Your task to perform on an android device: Search for flights from NYC to Tokyo Image 0: 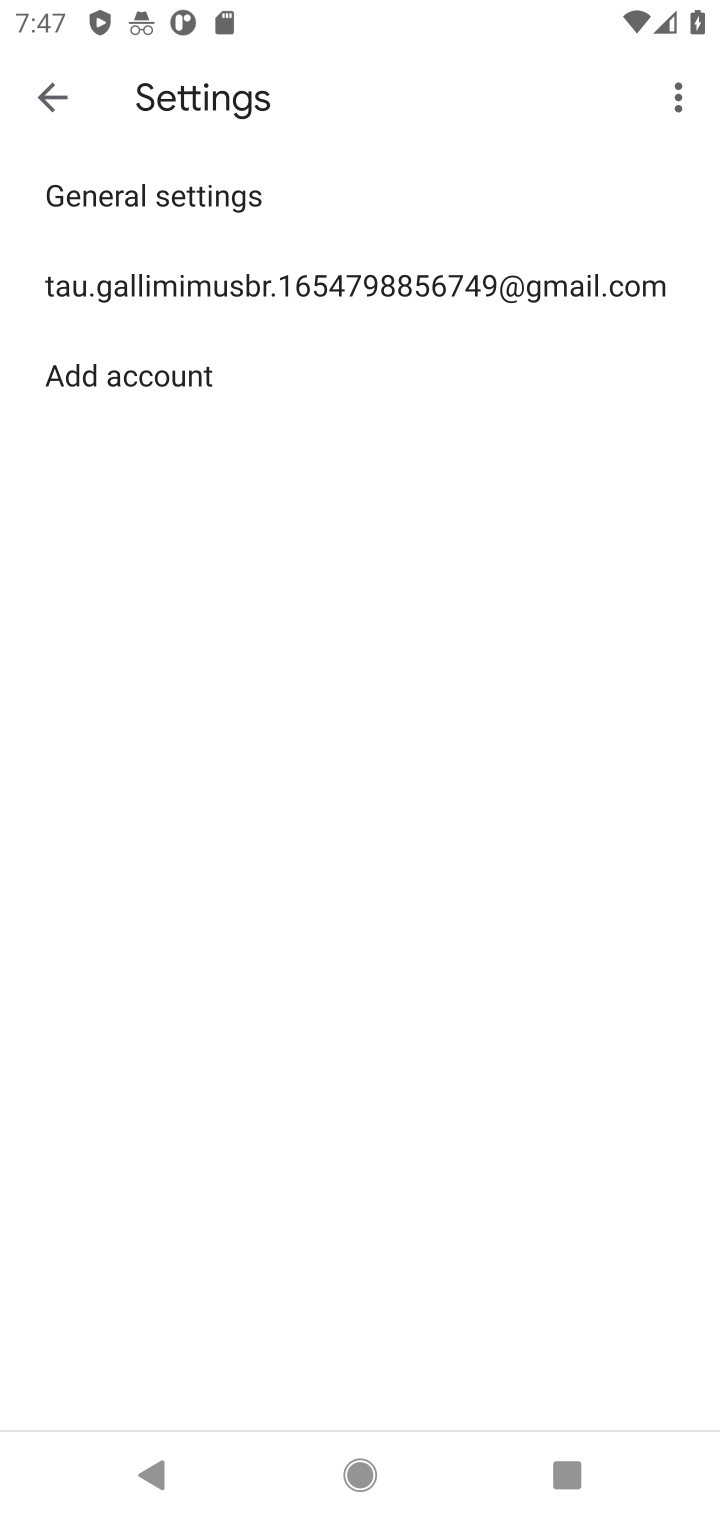
Step 0: press home button
Your task to perform on an android device: Search for flights from NYC to Tokyo Image 1: 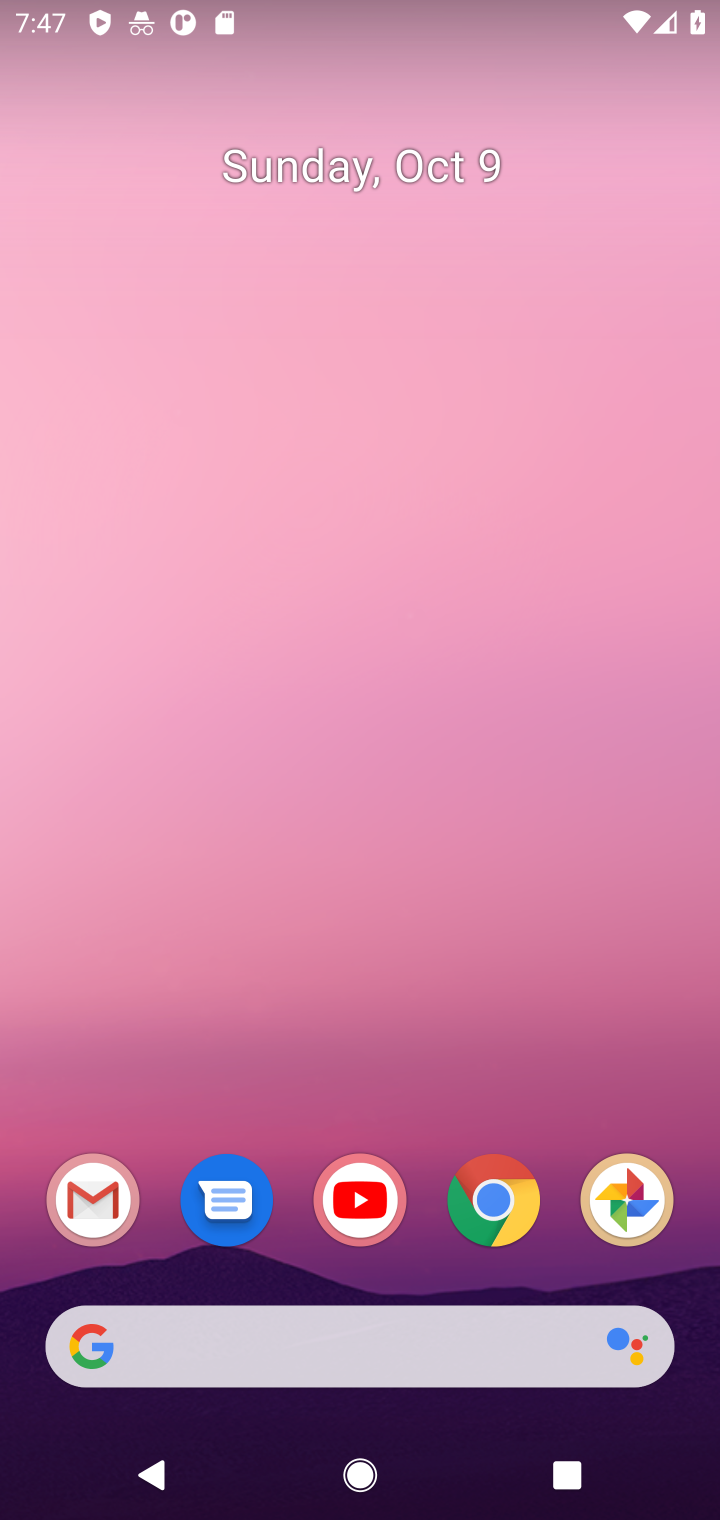
Step 1: click (487, 1207)
Your task to perform on an android device: Search for flights from NYC to Tokyo Image 2: 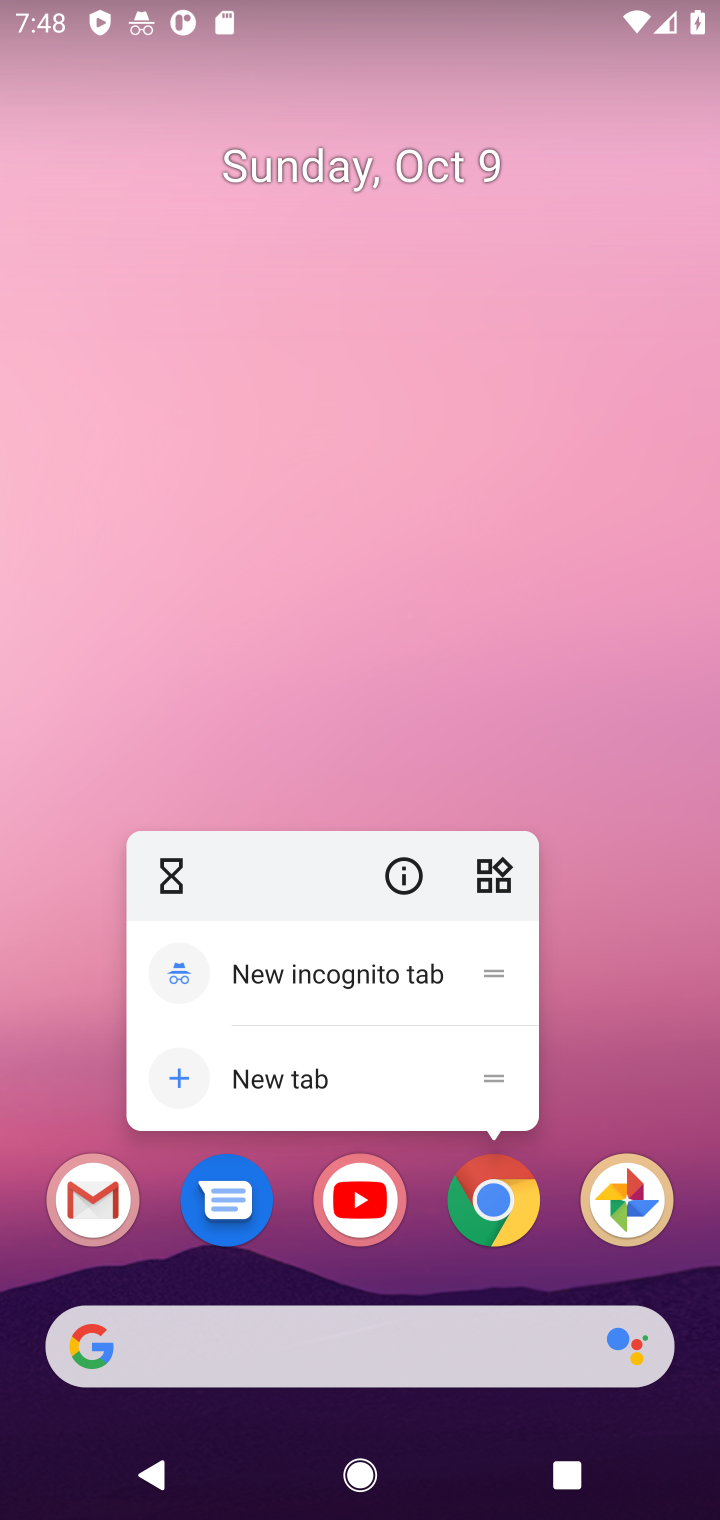
Step 2: click (503, 1212)
Your task to perform on an android device: Search for flights from NYC to Tokyo Image 3: 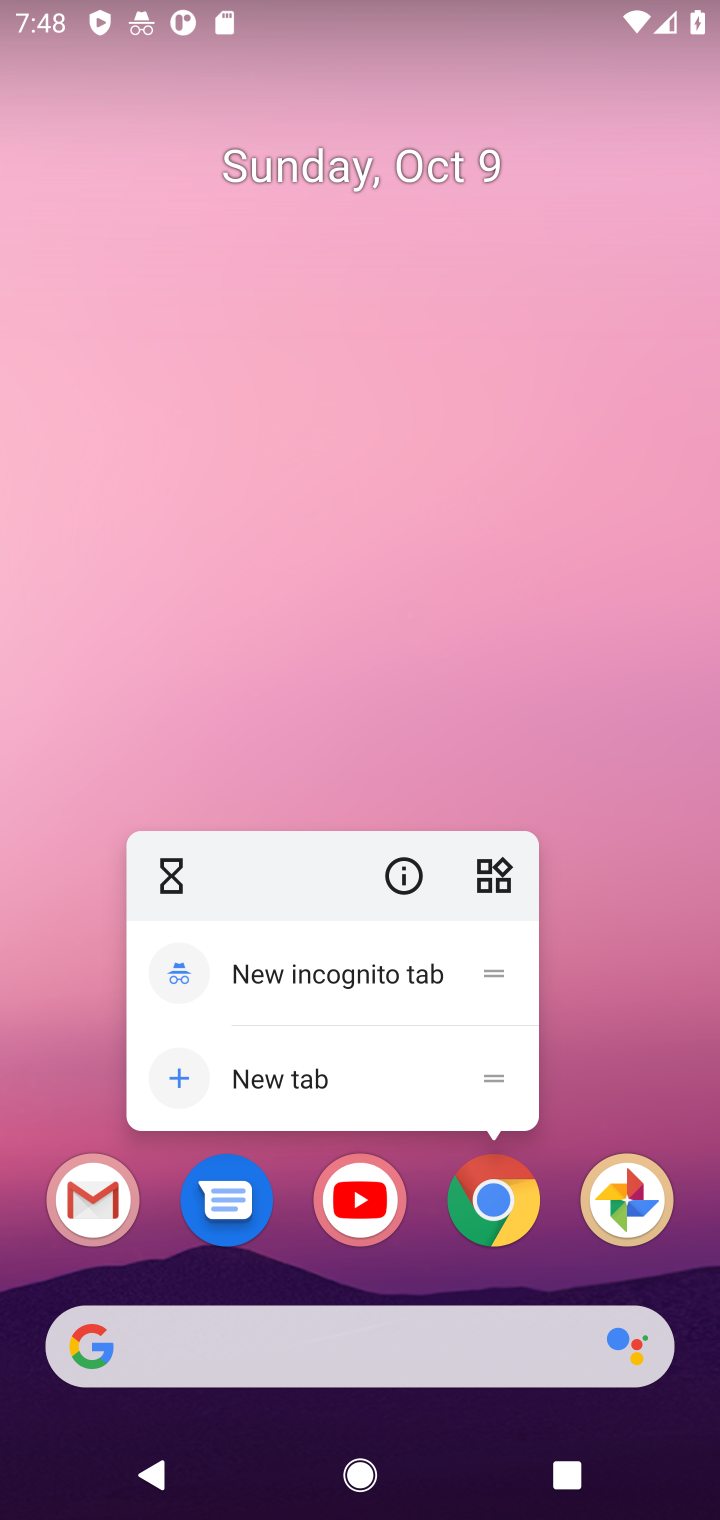
Step 3: click (503, 1208)
Your task to perform on an android device: Search for flights from NYC to Tokyo Image 4: 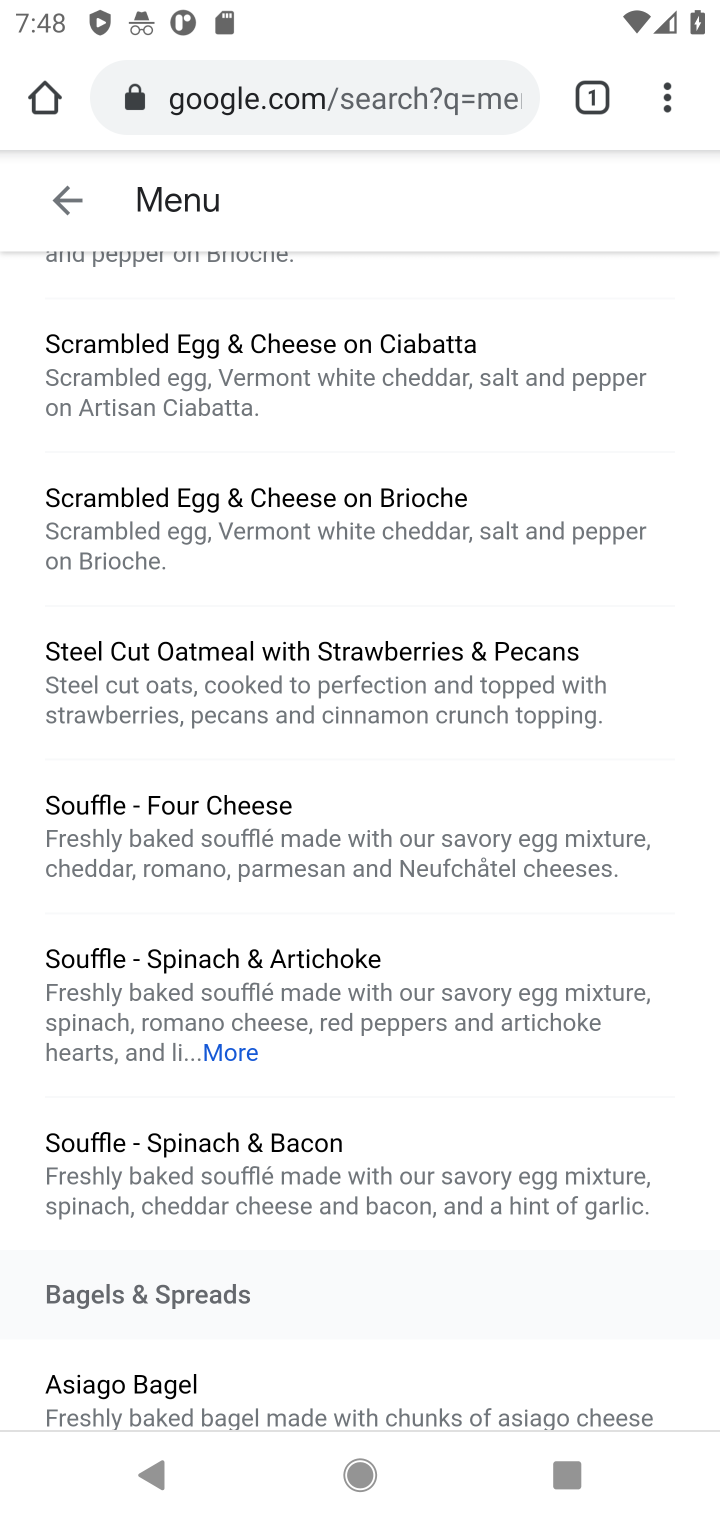
Step 4: click (392, 105)
Your task to perform on an android device: Search for flights from NYC to Tokyo Image 5: 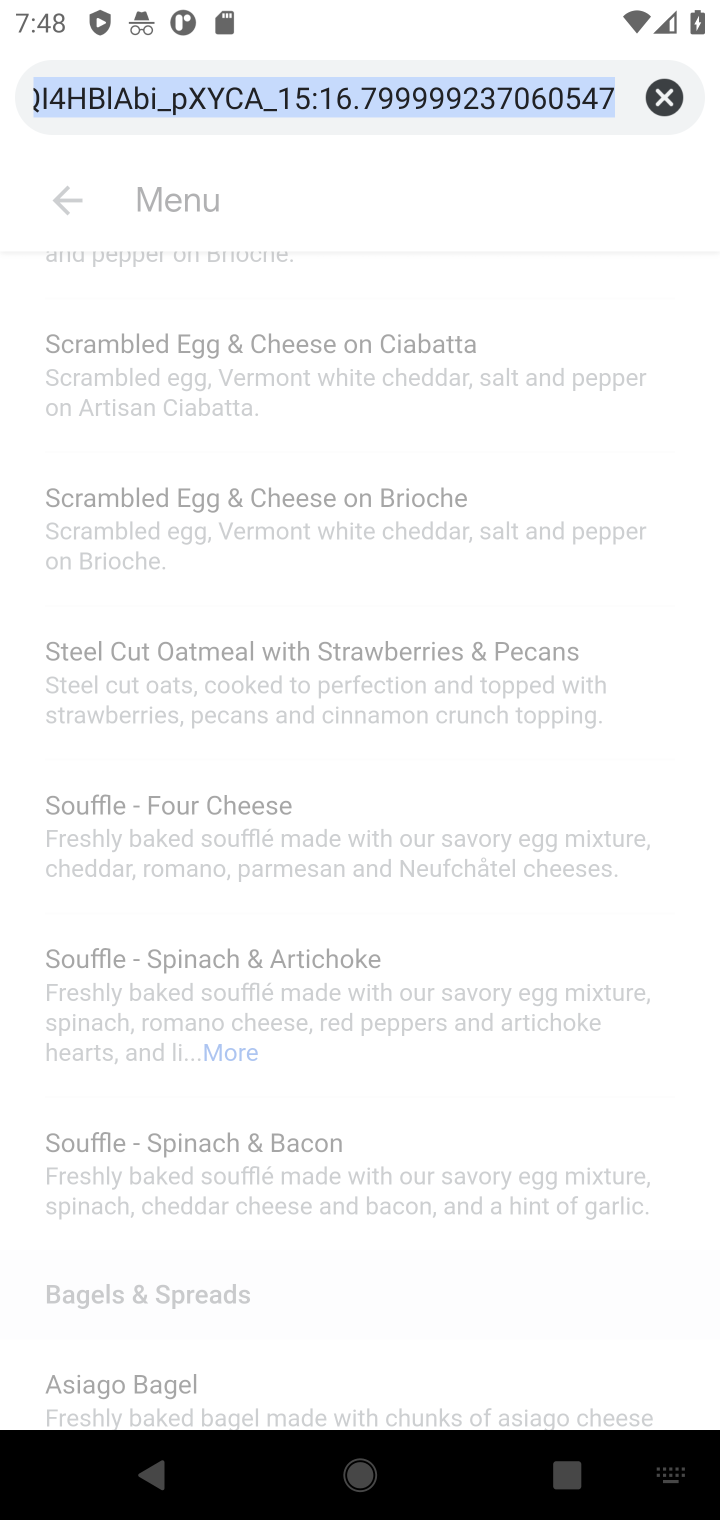
Step 5: click (656, 107)
Your task to perform on an android device: Search for flights from NYC to Tokyo Image 6: 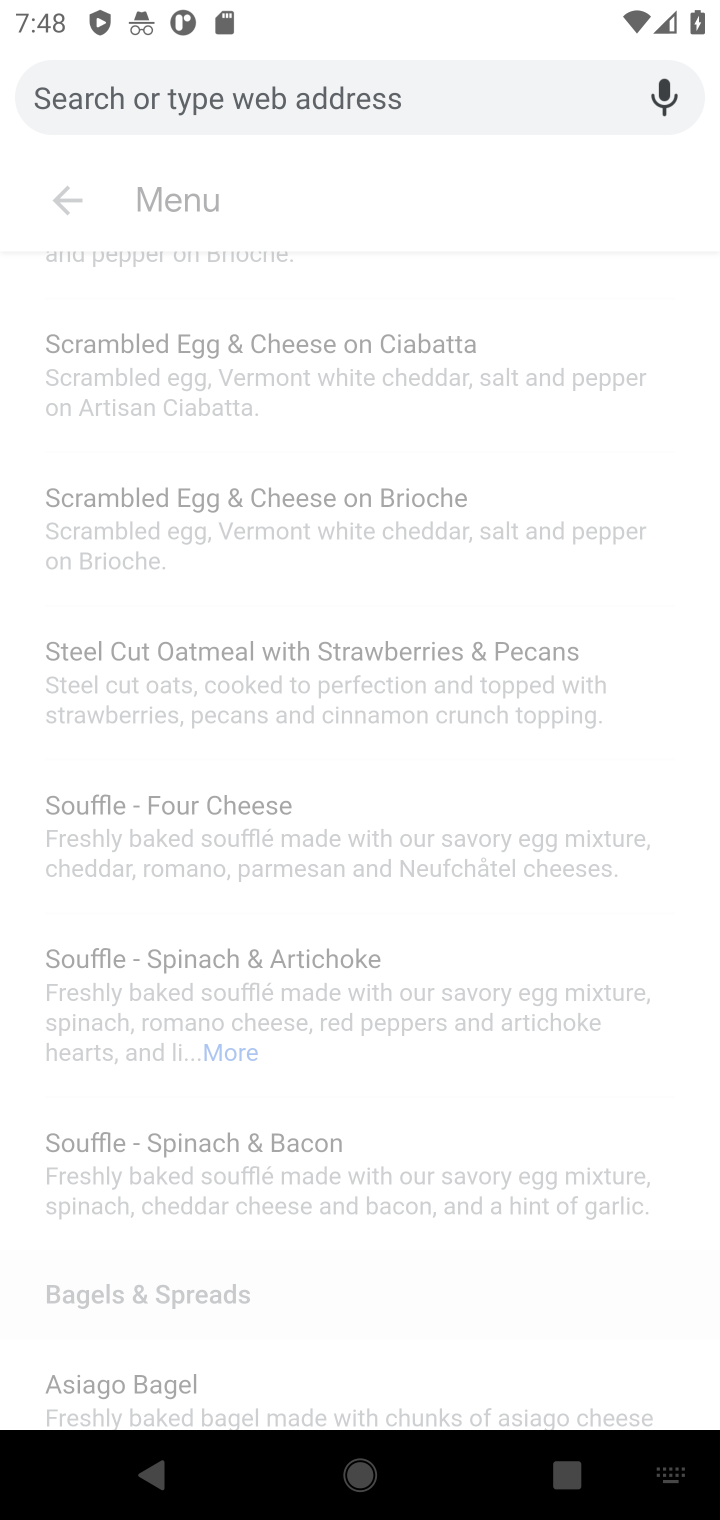
Step 6: type "flights from NYC to Tokyo"
Your task to perform on an android device: Search for flights from NYC to Tokyo Image 7: 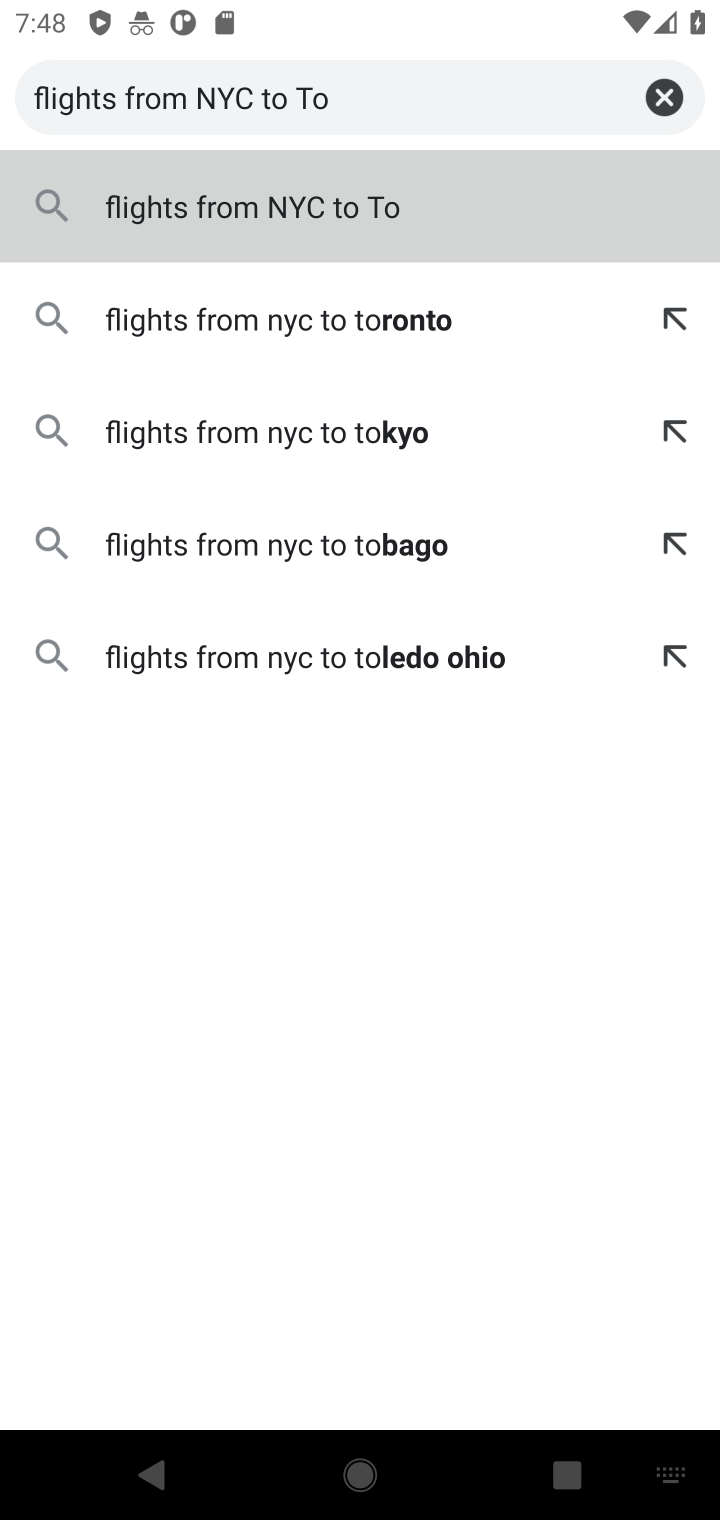
Step 7: type ""
Your task to perform on an android device: Search for flights from NYC to Tokyo Image 8: 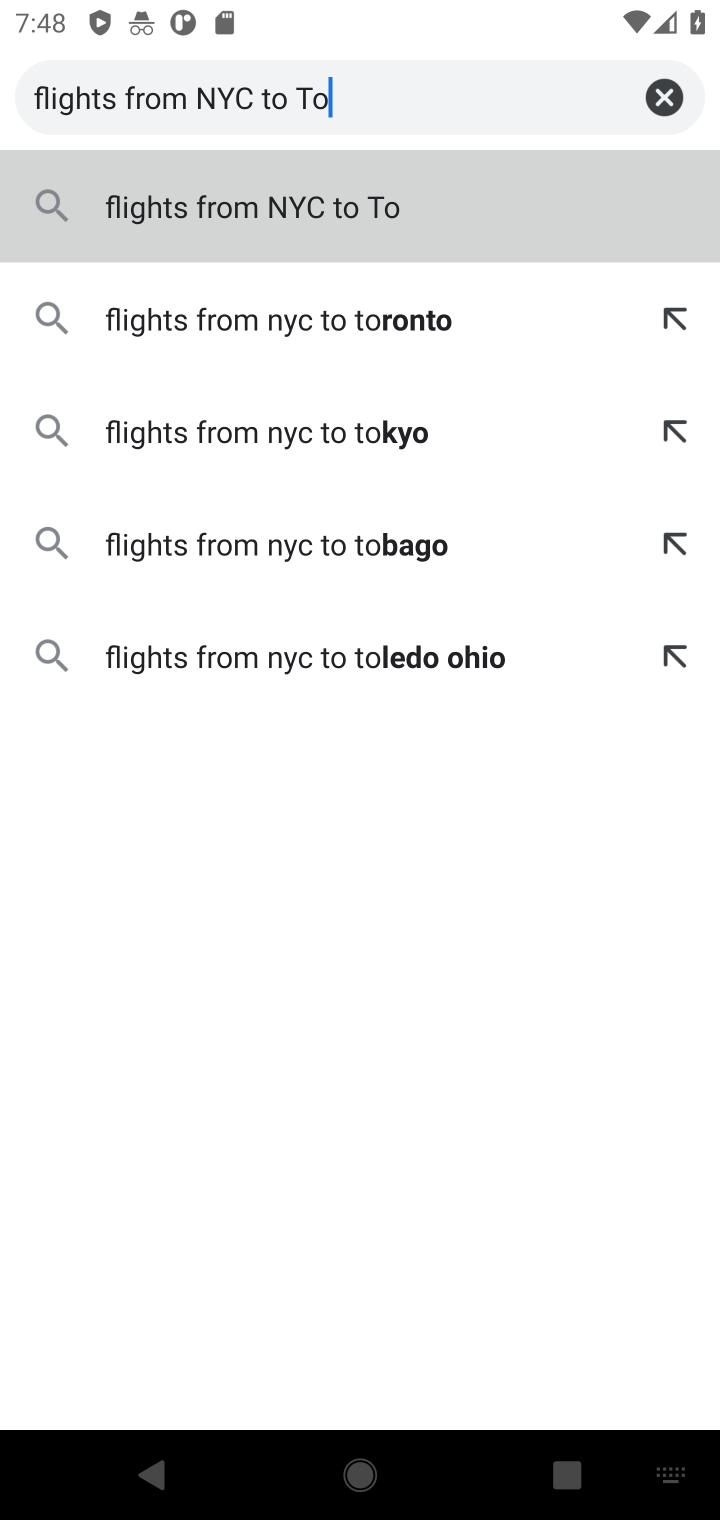
Step 8: click (405, 428)
Your task to perform on an android device: Search for flights from NYC to Tokyo Image 9: 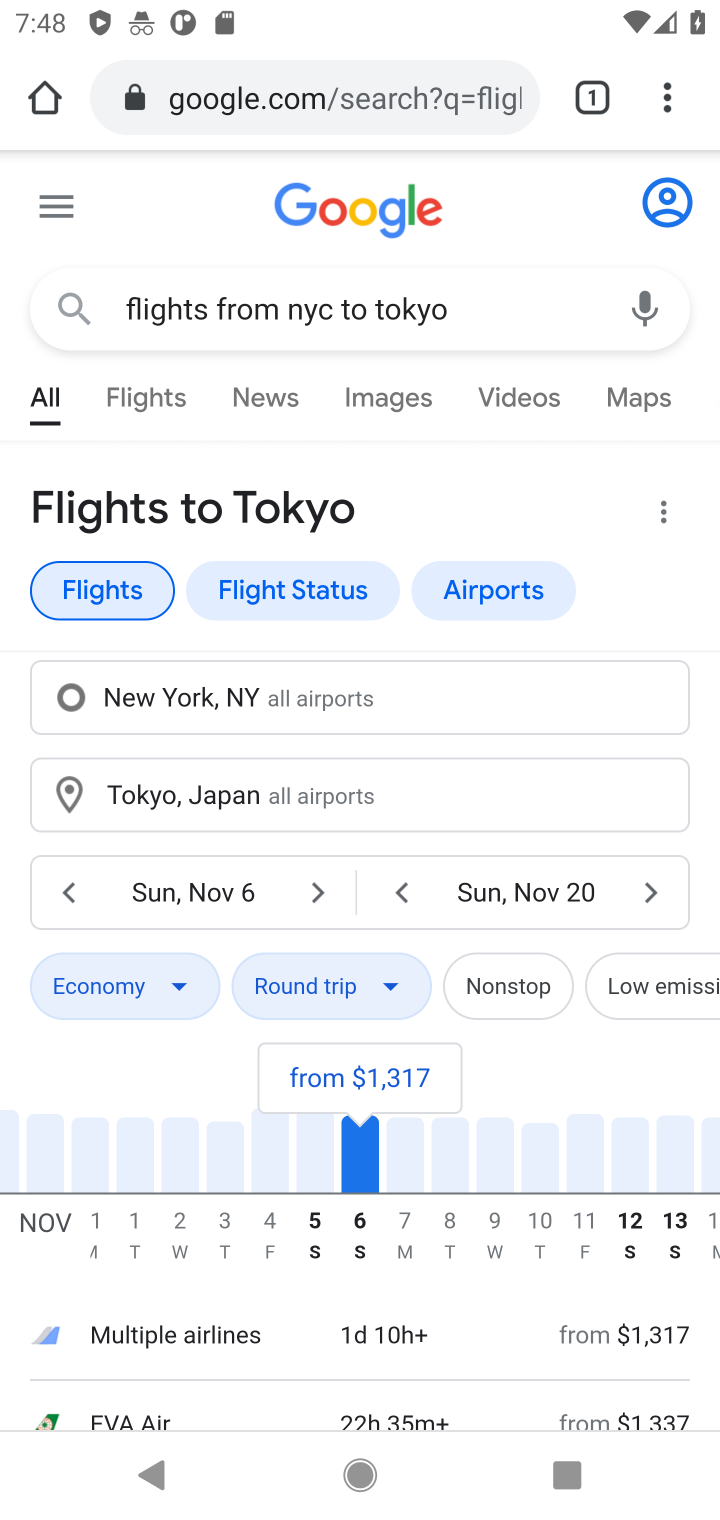
Step 9: drag from (452, 948) to (402, 347)
Your task to perform on an android device: Search for flights from NYC to Tokyo Image 10: 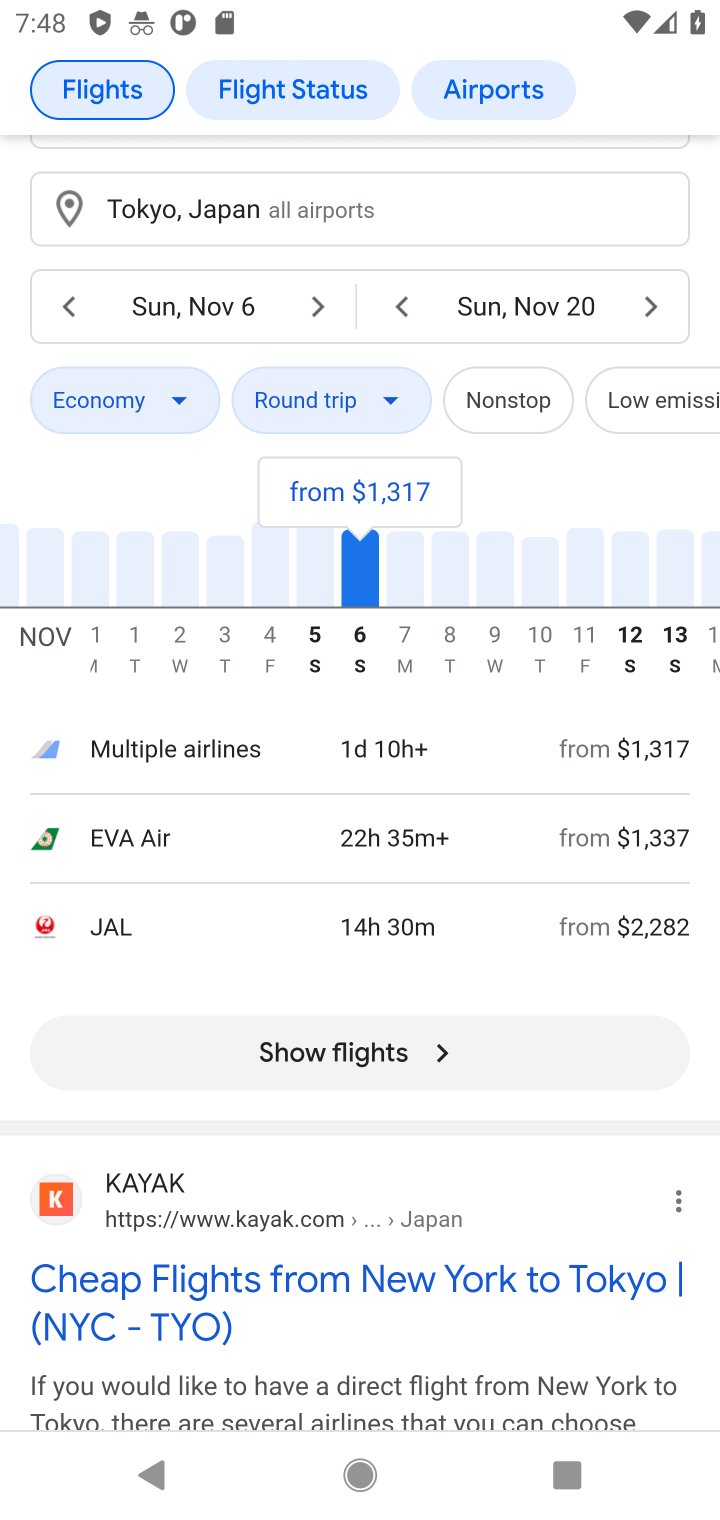
Step 10: click (406, 1060)
Your task to perform on an android device: Search for flights from NYC to Tokyo Image 11: 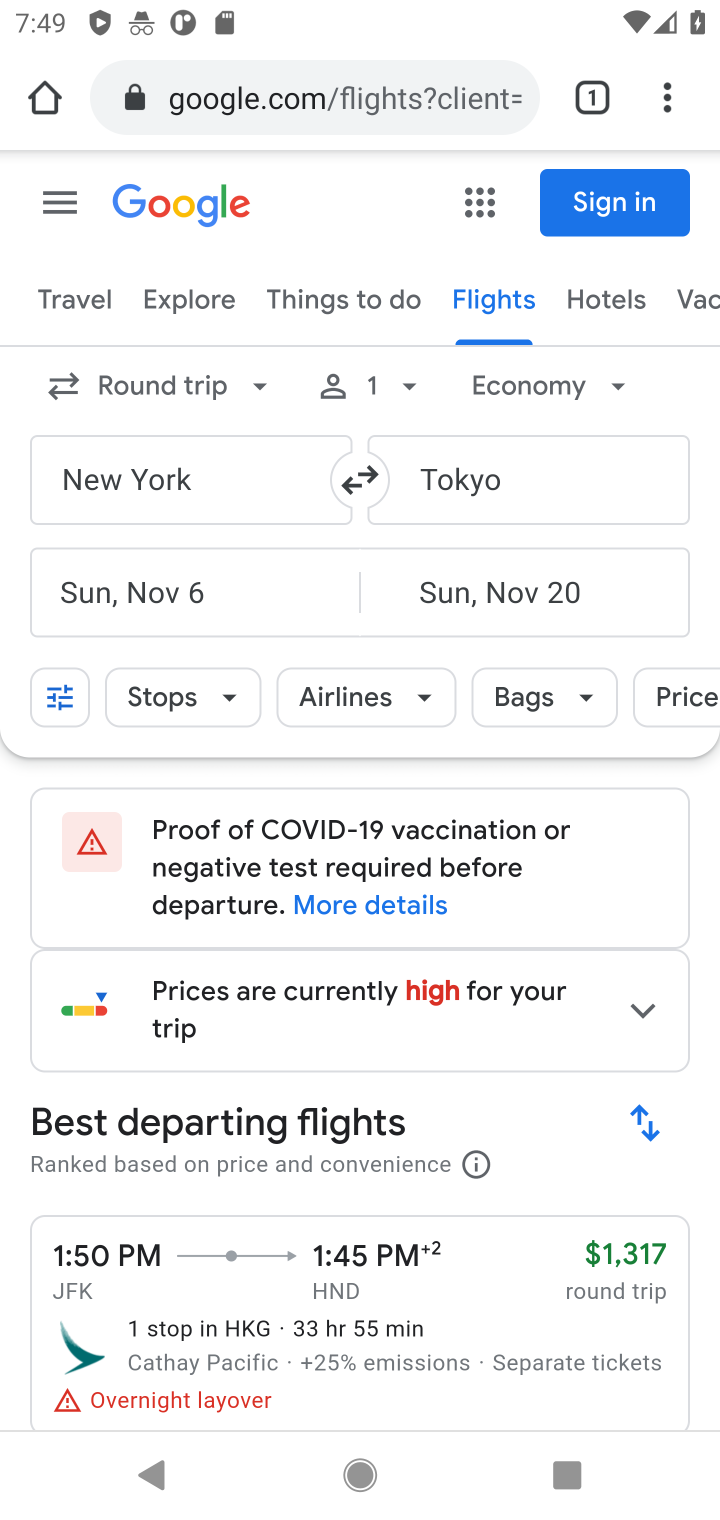
Step 11: task complete